Your task to perform on an android device: Go to CNN.com Image 0: 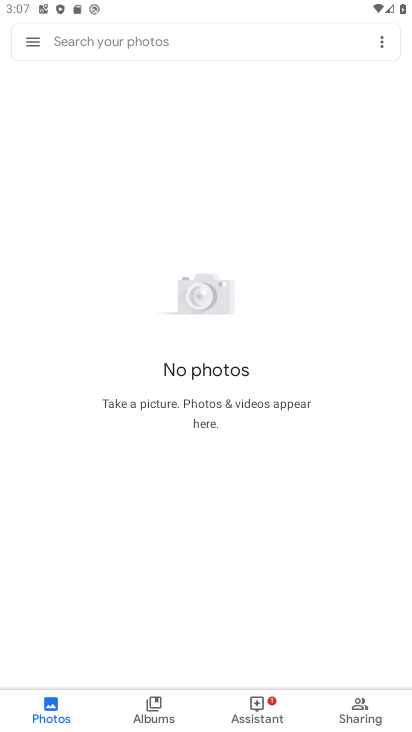
Step 0: press home button
Your task to perform on an android device: Go to CNN.com Image 1: 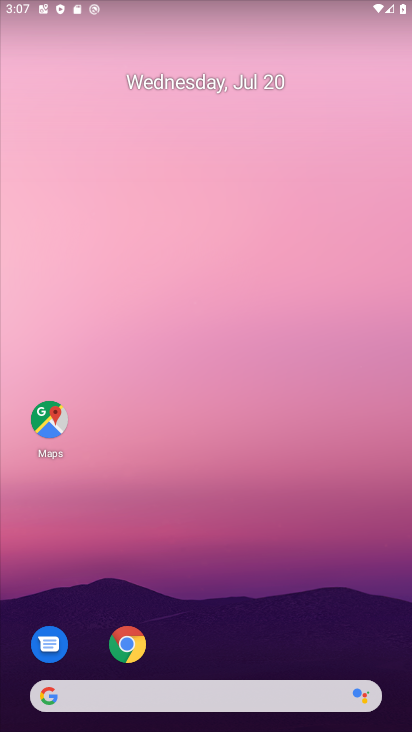
Step 1: drag from (167, 642) to (176, 139)
Your task to perform on an android device: Go to CNN.com Image 2: 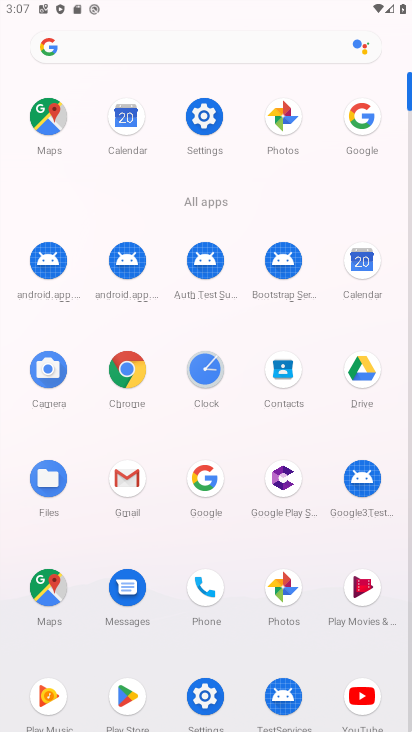
Step 2: click (207, 478)
Your task to perform on an android device: Go to CNN.com Image 3: 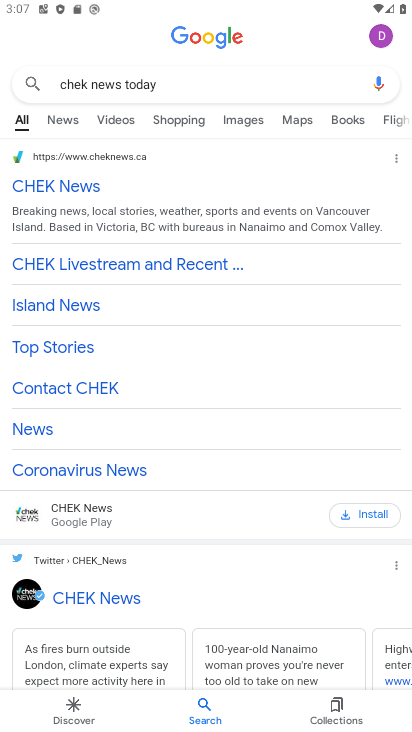
Step 3: click (172, 80)
Your task to perform on an android device: Go to CNN.com Image 4: 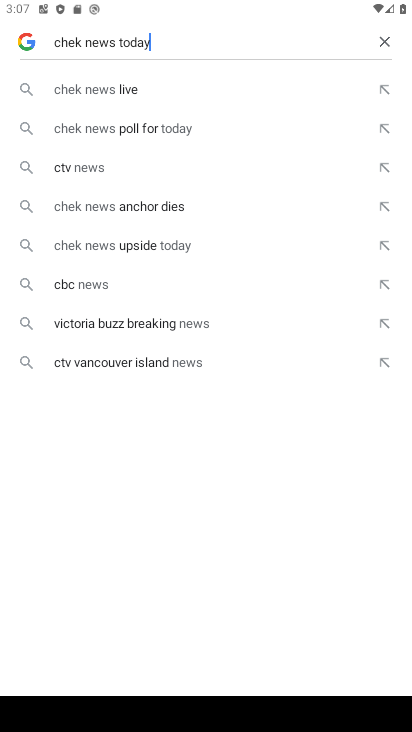
Step 4: click (387, 40)
Your task to perform on an android device: Go to CNN.com Image 5: 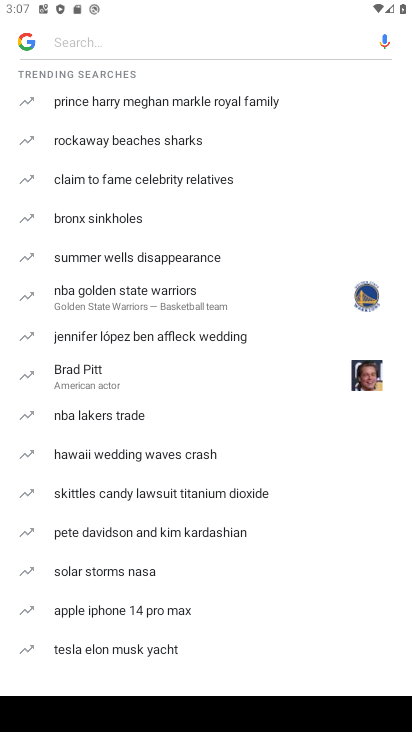
Step 5: click (88, 41)
Your task to perform on an android device: Go to CNN.com Image 6: 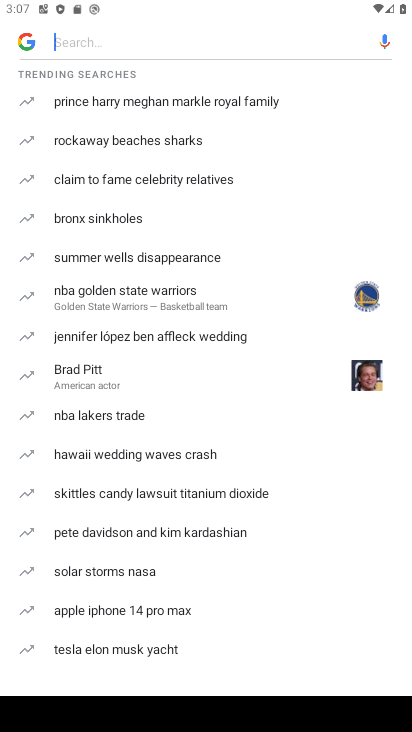
Step 6: type "CNN.com"
Your task to perform on an android device: Go to CNN.com Image 7: 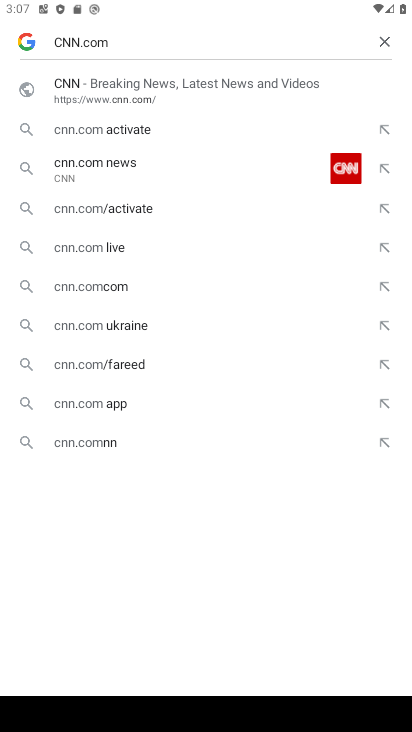
Step 7: click (95, 84)
Your task to perform on an android device: Go to CNN.com Image 8: 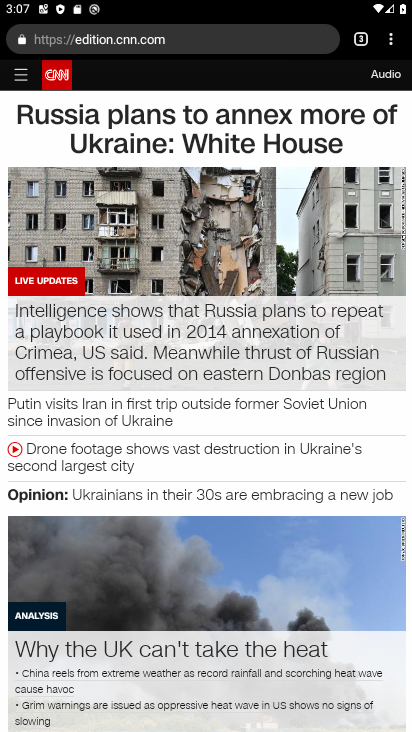
Step 8: task complete